Your task to perform on an android device: turn pop-ups off in chrome Image 0: 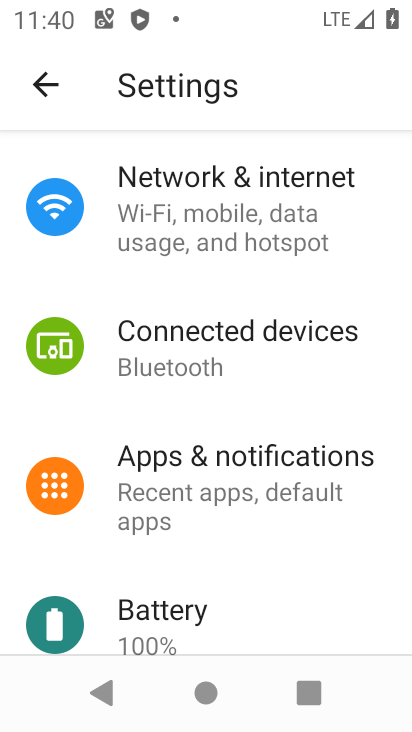
Step 0: press home button
Your task to perform on an android device: turn pop-ups off in chrome Image 1: 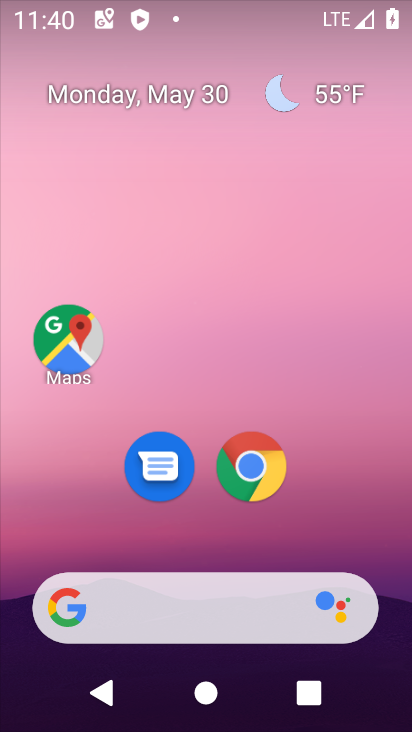
Step 1: click (265, 450)
Your task to perform on an android device: turn pop-ups off in chrome Image 2: 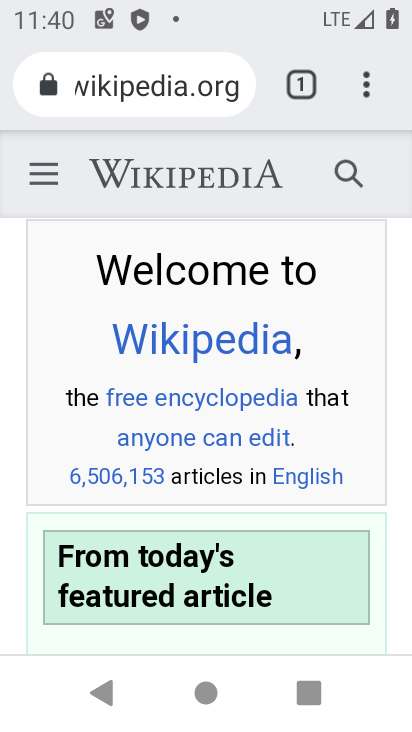
Step 2: click (361, 95)
Your task to perform on an android device: turn pop-ups off in chrome Image 3: 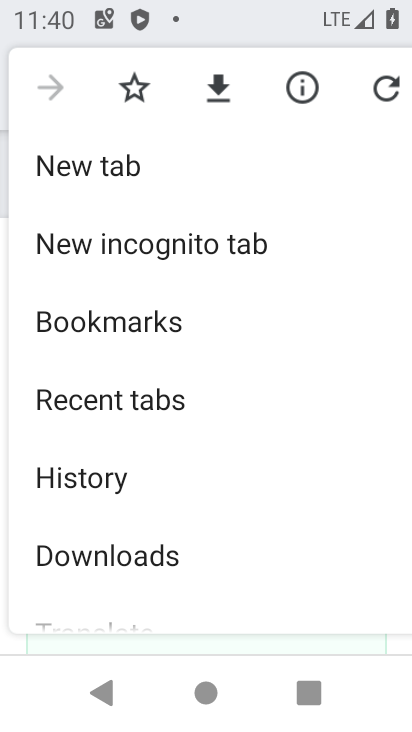
Step 3: drag from (163, 538) to (159, 200)
Your task to perform on an android device: turn pop-ups off in chrome Image 4: 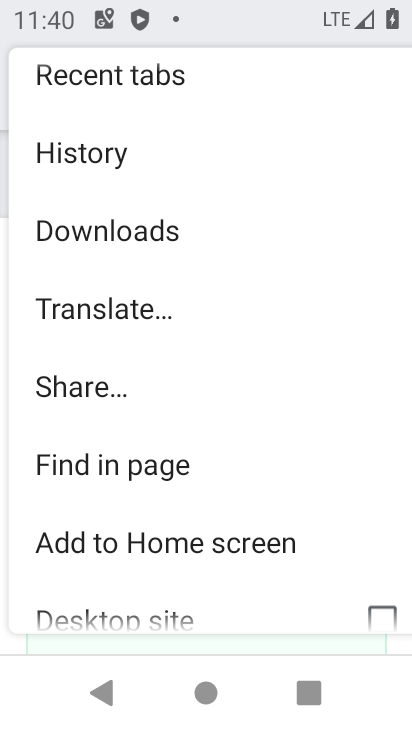
Step 4: drag from (116, 544) to (169, 226)
Your task to perform on an android device: turn pop-ups off in chrome Image 5: 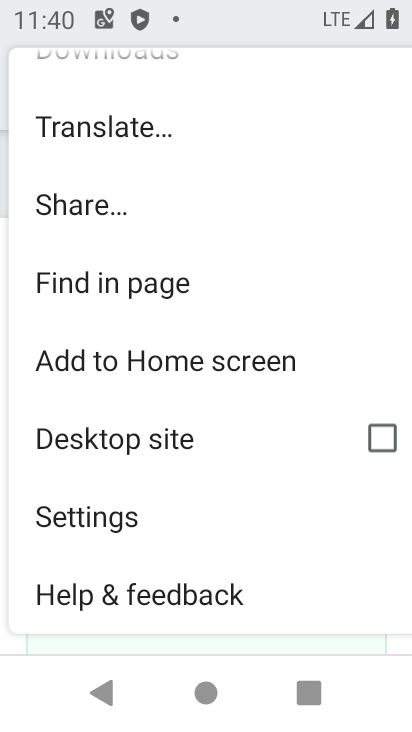
Step 5: click (132, 532)
Your task to perform on an android device: turn pop-ups off in chrome Image 6: 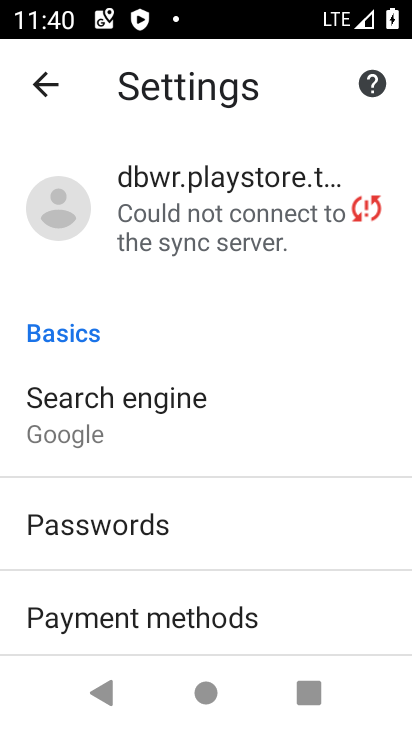
Step 6: drag from (161, 562) to (188, 249)
Your task to perform on an android device: turn pop-ups off in chrome Image 7: 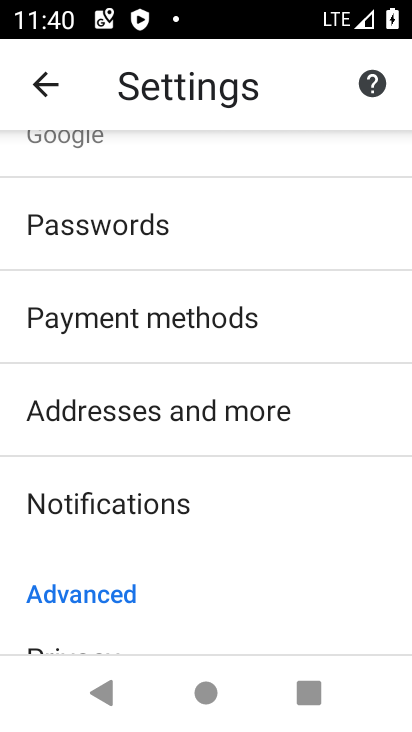
Step 7: drag from (163, 626) to (167, 308)
Your task to perform on an android device: turn pop-ups off in chrome Image 8: 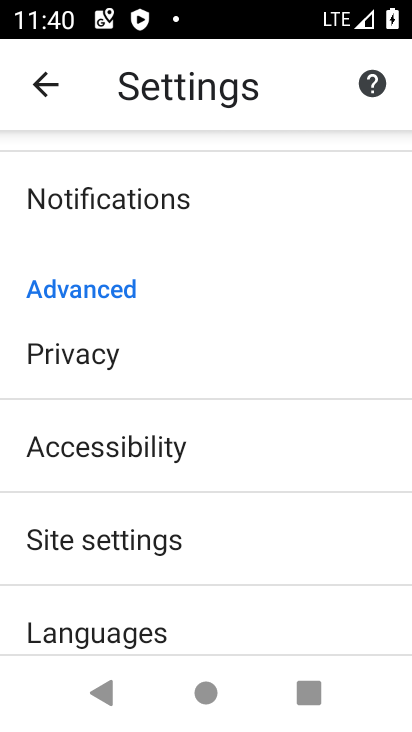
Step 8: drag from (166, 585) to (187, 260)
Your task to perform on an android device: turn pop-ups off in chrome Image 9: 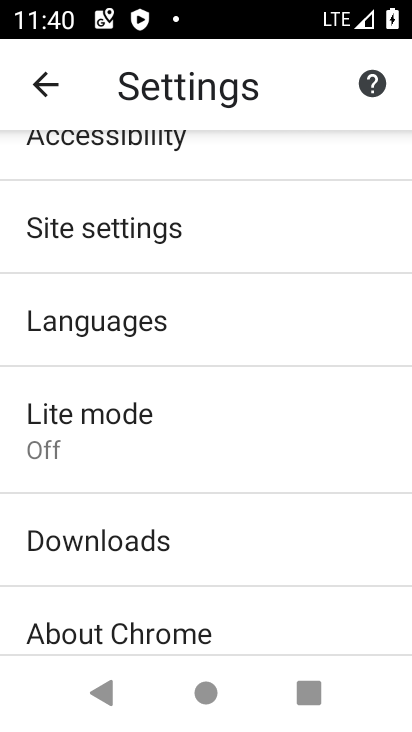
Step 9: click (158, 233)
Your task to perform on an android device: turn pop-ups off in chrome Image 10: 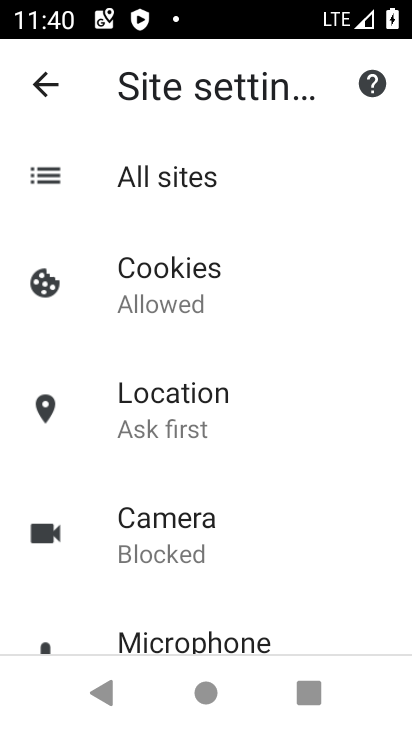
Step 10: drag from (229, 557) to (231, 283)
Your task to perform on an android device: turn pop-ups off in chrome Image 11: 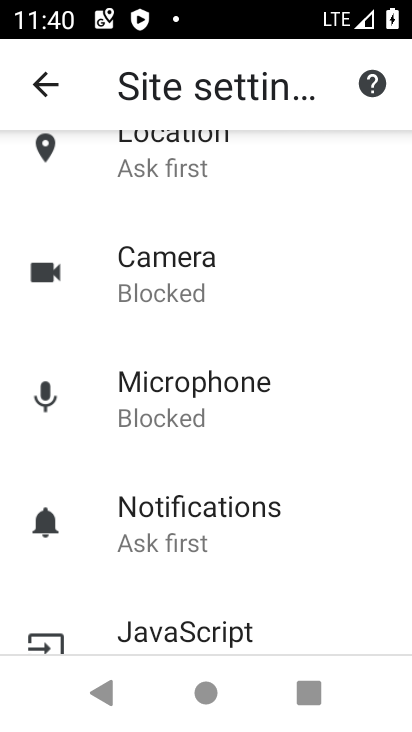
Step 11: drag from (231, 571) to (222, 212)
Your task to perform on an android device: turn pop-ups off in chrome Image 12: 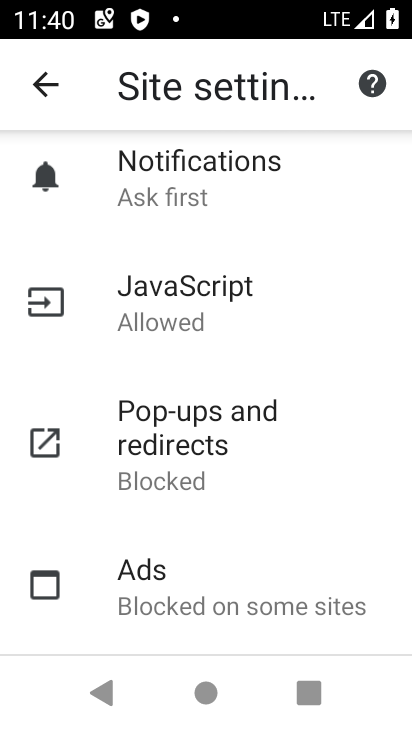
Step 12: click (188, 467)
Your task to perform on an android device: turn pop-ups off in chrome Image 13: 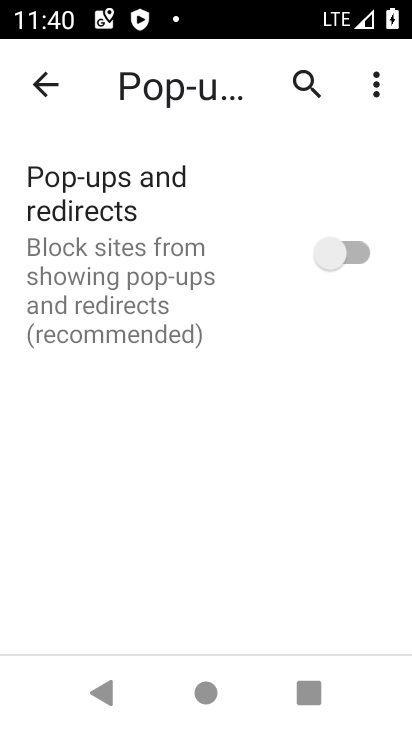
Step 13: task complete